Your task to perform on an android device: turn off location Image 0: 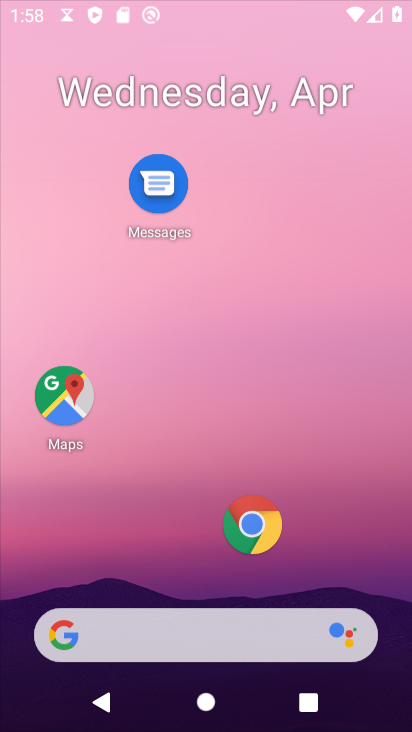
Step 0: drag from (105, 327) to (128, 176)
Your task to perform on an android device: turn off location Image 1: 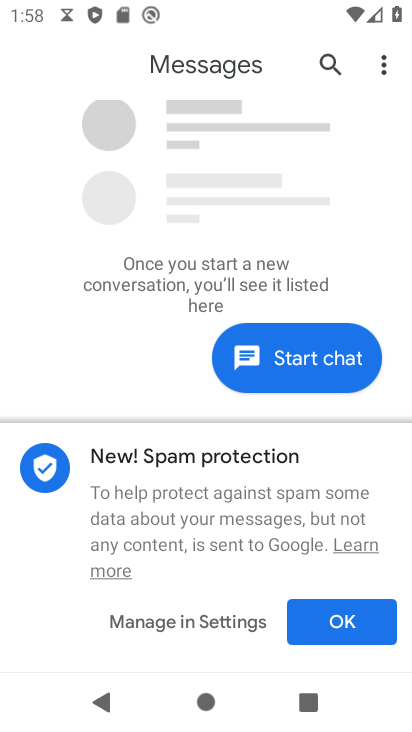
Step 1: press back button
Your task to perform on an android device: turn off location Image 2: 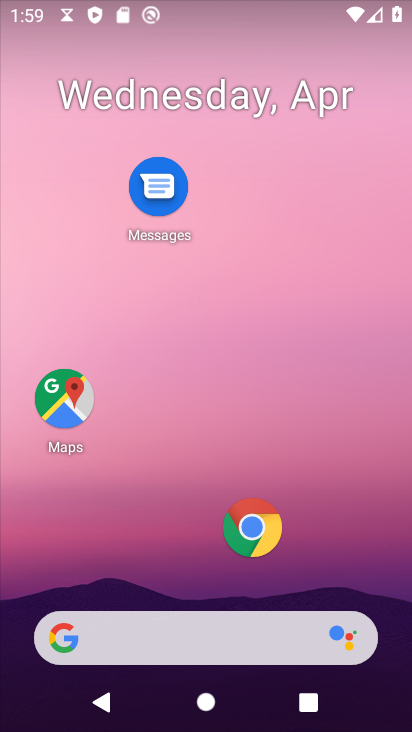
Step 2: drag from (149, 592) to (186, 188)
Your task to perform on an android device: turn off location Image 3: 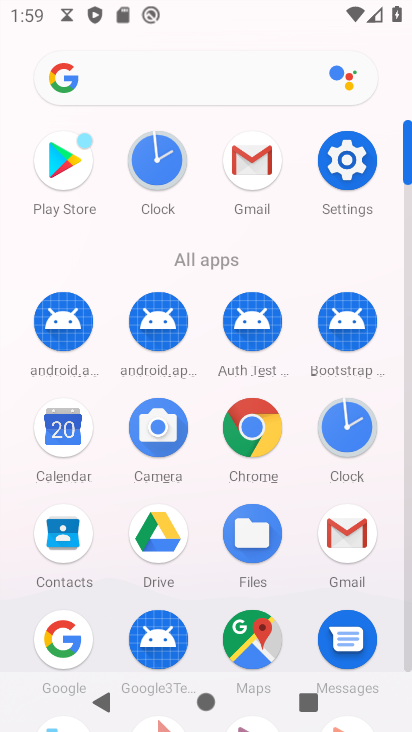
Step 3: click (351, 164)
Your task to perform on an android device: turn off location Image 4: 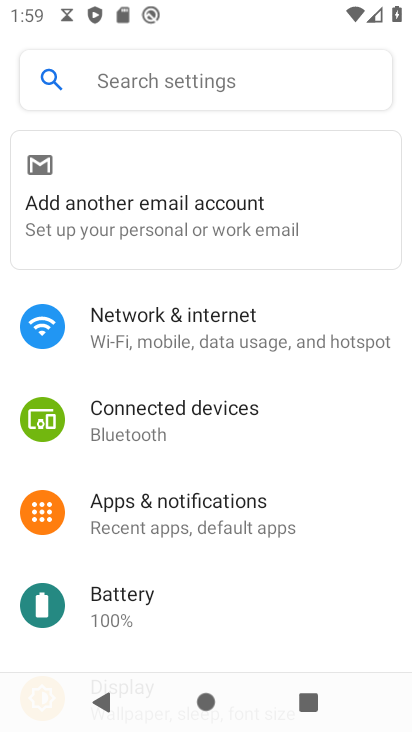
Step 4: drag from (223, 548) to (231, 322)
Your task to perform on an android device: turn off location Image 5: 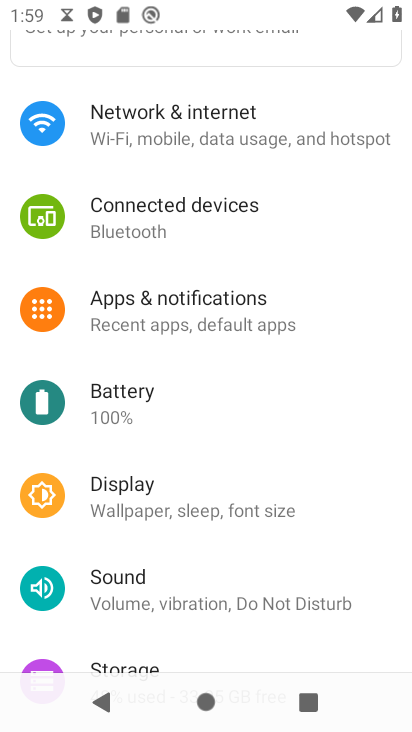
Step 5: drag from (154, 557) to (153, 350)
Your task to perform on an android device: turn off location Image 6: 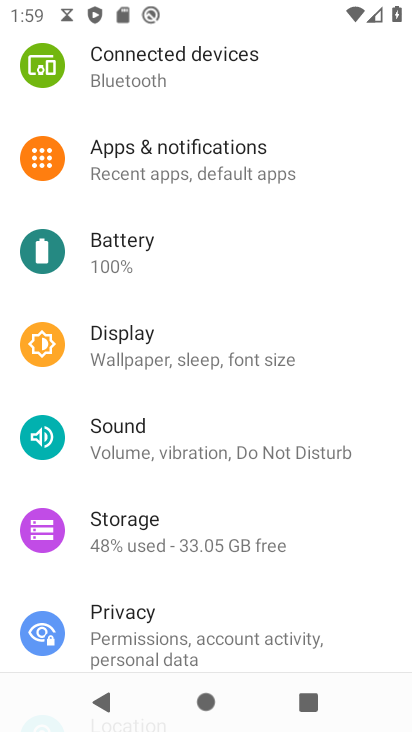
Step 6: drag from (202, 636) to (202, 406)
Your task to perform on an android device: turn off location Image 7: 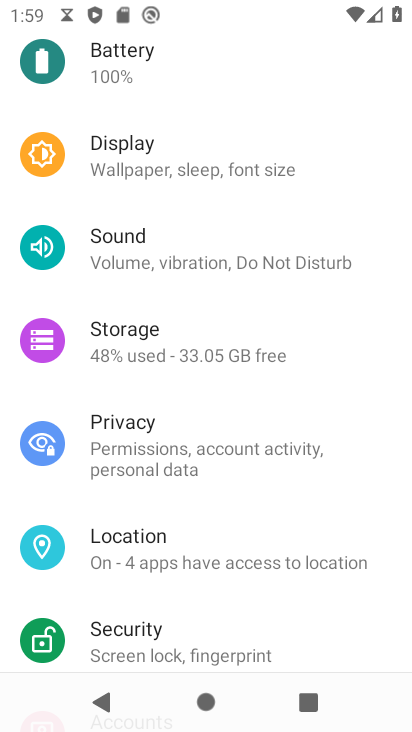
Step 7: drag from (197, 510) to (237, 227)
Your task to perform on an android device: turn off location Image 8: 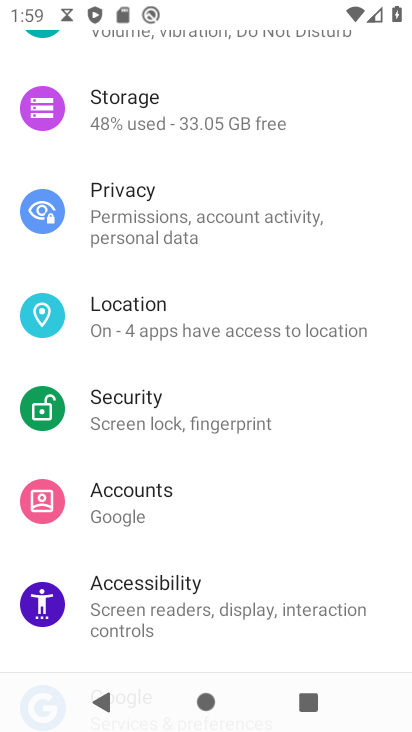
Step 8: drag from (178, 622) to (229, 312)
Your task to perform on an android device: turn off location Image 9: 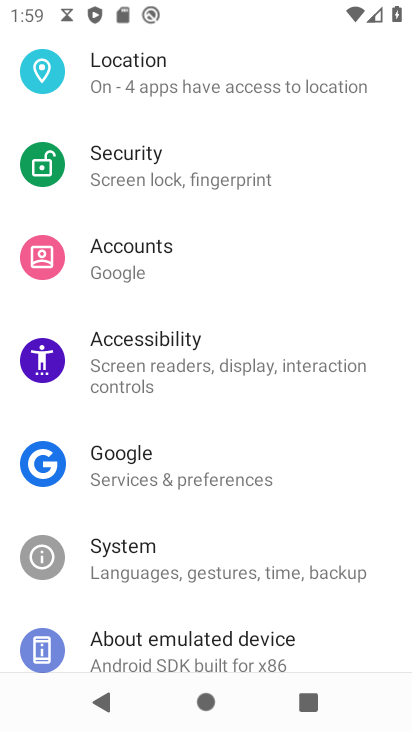
Step 9: drag from (193, 216) to (179, 452)
Your task to perform on an android device: turn off location Image 10: 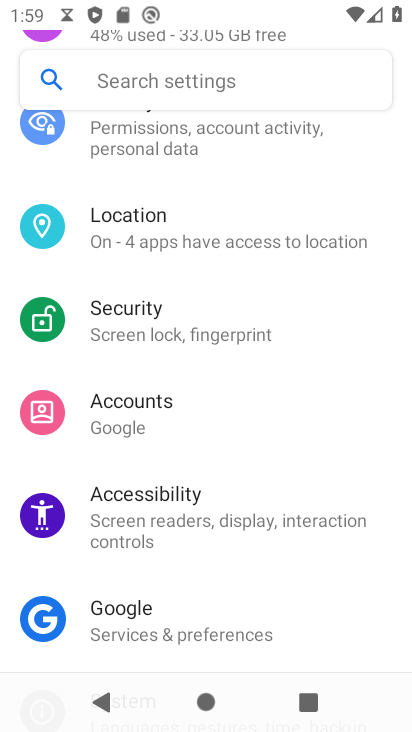
Step 10: click (155, 239)
Your task to perform on an android device: turn off location Image 11: 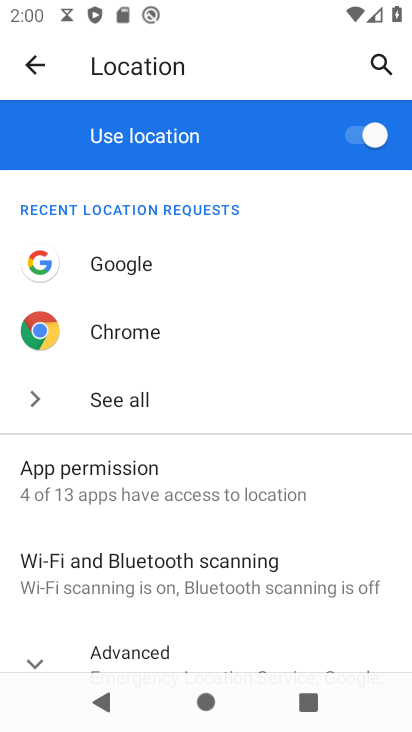
Step 11: click (350, 142)
Your task to perform on an android device: turn off location Image 12: 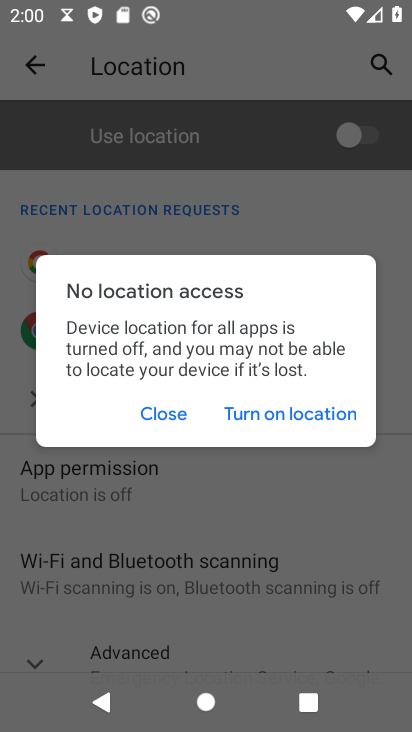
Step 12: task complete